Your task to perform on an android device: Set the phone to "Do not disturb". Image 0: 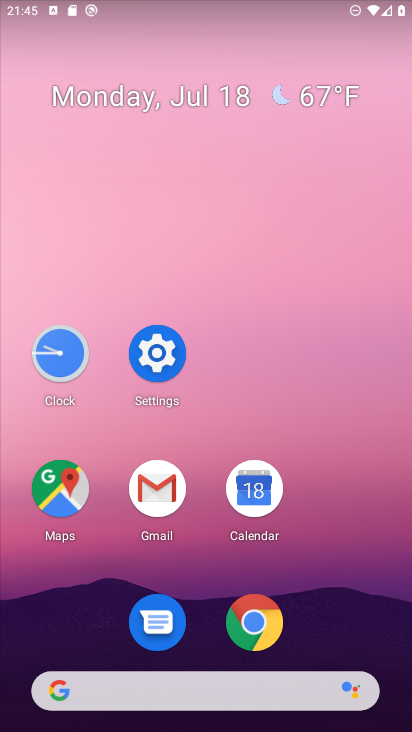
Step 0: click (152, 355)
Your task to perform on an android device: Set the phone to "Do not disturb". Image 1: 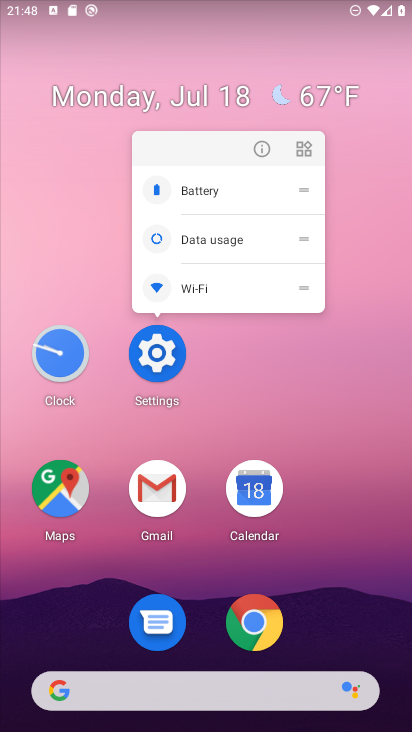
Step 1: click (145, 365)
Your task to perform on an android device: Set the phone to "Do not disturb". Image 2: 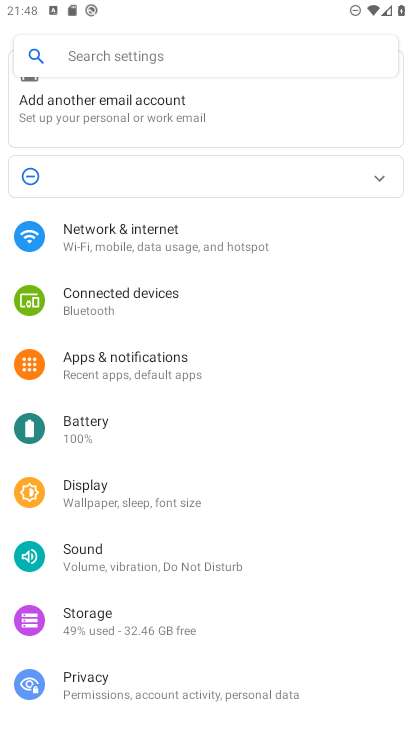
Step 2: click (94, 556)
Your task to perform on an android device: Set the phone to "Do not disturb". Image 3: 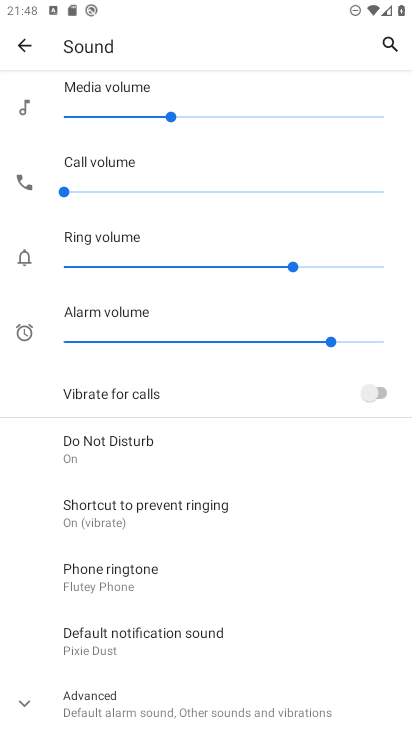
Step 3: task complete